Your task to perform on an android device: move a message to another label in the gmail app Image 0: 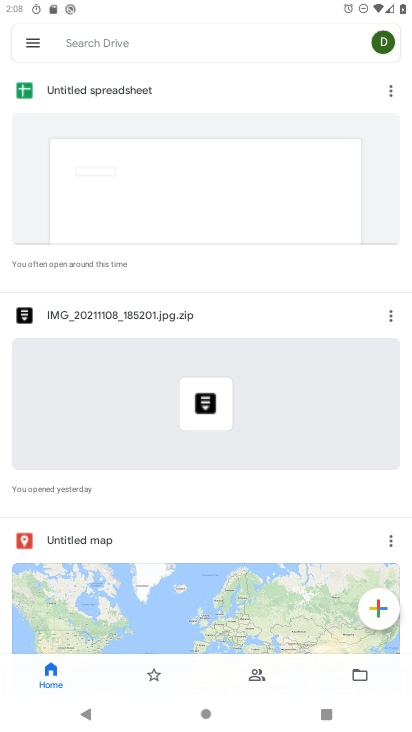
Step 0: press home button
Your task to perform on an android device: move a message to another label in the gmail app Image 1: 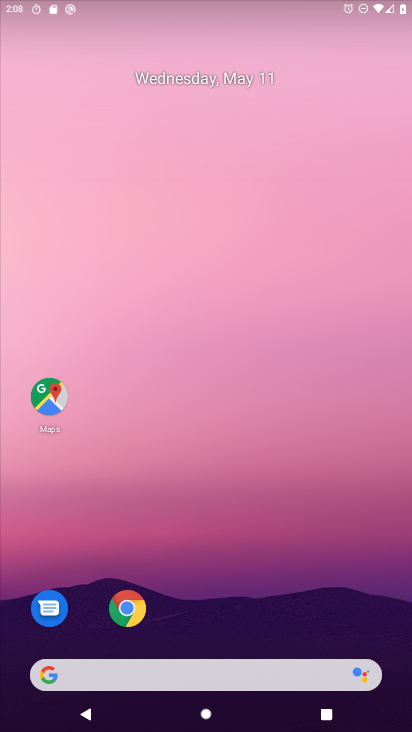
Step 1: drag from (239, 657) to (251, 159)
Your task to perform on an android device: move a message to another label in the gmail app Image 2: 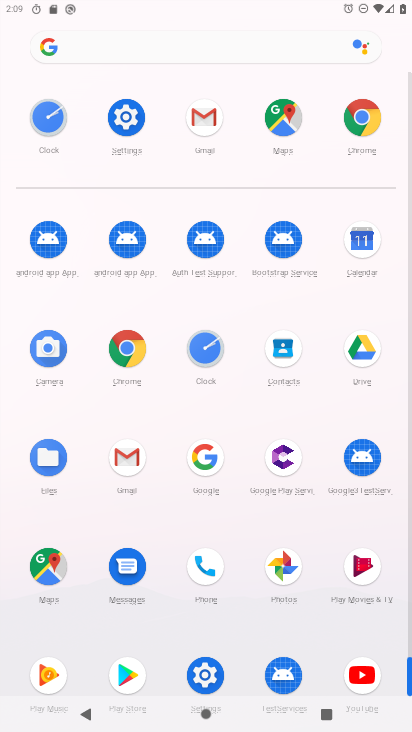
Step 2: click (141, 475)
Your task to perform on an android device: move a message to another label in the gmail app Image 3: 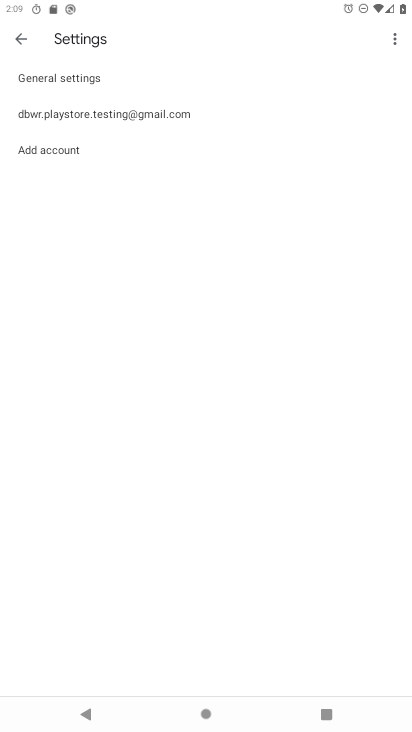
Step 3: click (20, 42)
Your task to perform on an android device: move a message to another label in the gmail app Image 4: 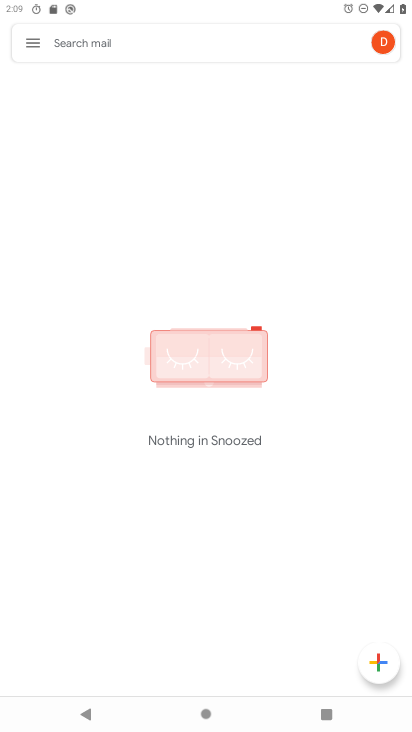
Step 4: click (28, 47)
Your task to perform on an android device: move a message to another label in the gmail app Image 5: 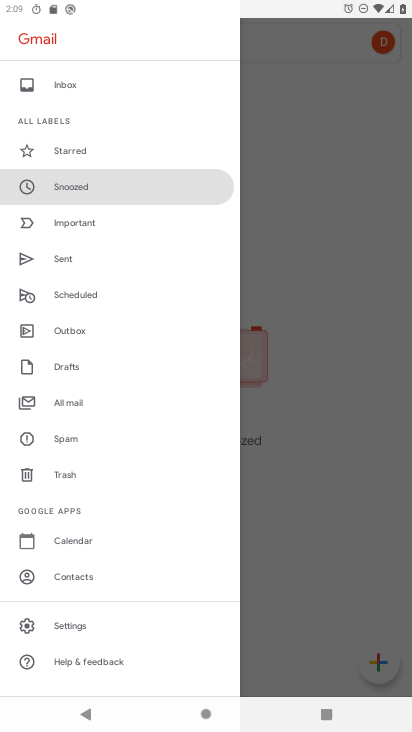
Step 5: click (82, 404)
Your task to perform on an android device: move a message to another label in the gmail app Image 6: 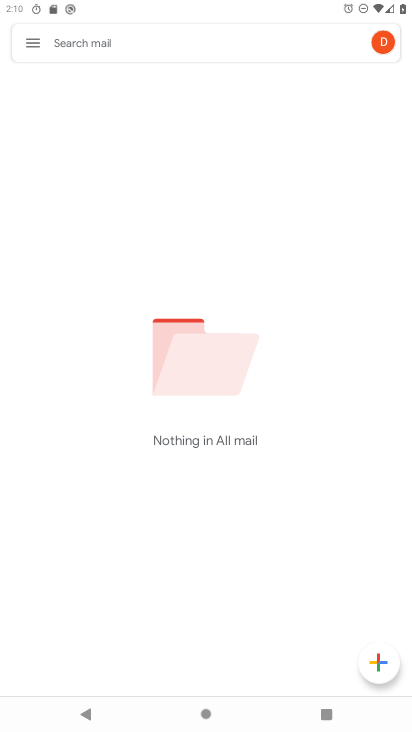
Step 6: task complete